Your task to perform on an android device: toggle airplane mode Image 0: 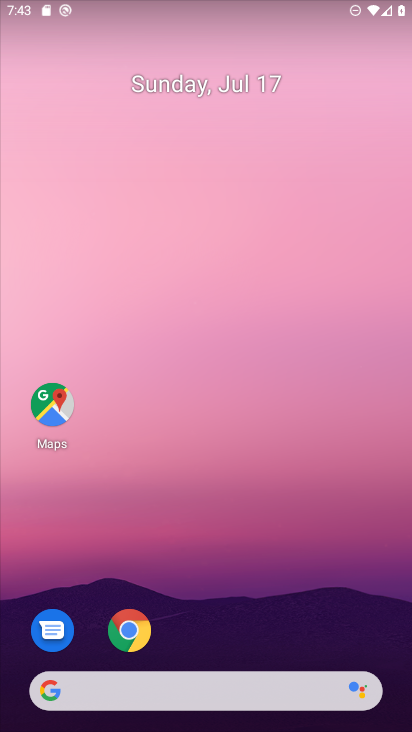
Step 0: drag from (390, 643) to (223, 52)
Your task to perform on an android device: toggle airplane mode Image 1: 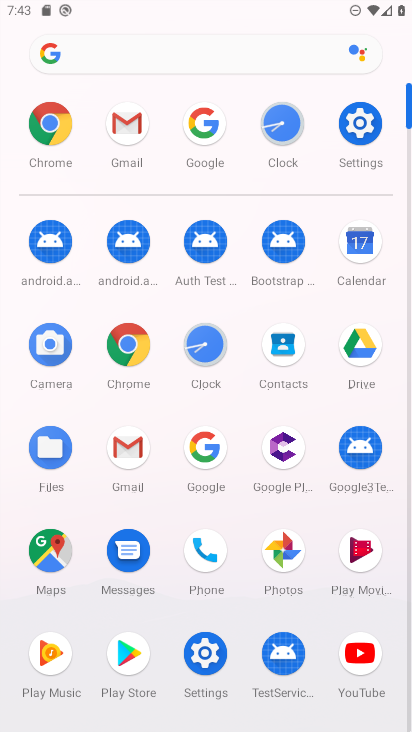
Step 1: drag from (292, 5) to (294, 648)
Your task to perform on an android device: toggle airplane mode Image 2: 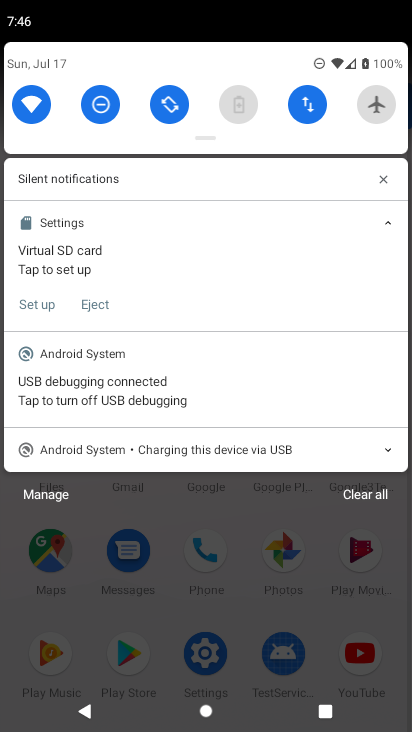
Step 2: click (383, 105)
Your task to perform on an android device: toggle airplane mode Image 3: 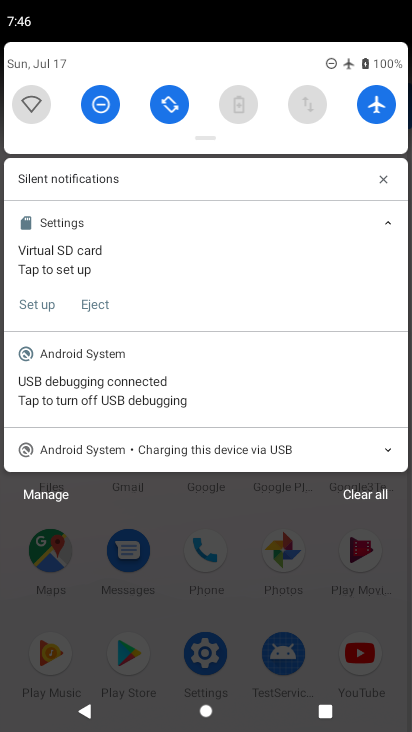
Step 3: task complete